Your task to perform on an android device: Search for acer nitro on ebay.com, select the first entry, add it to the cart, then select checkout. Image 0: 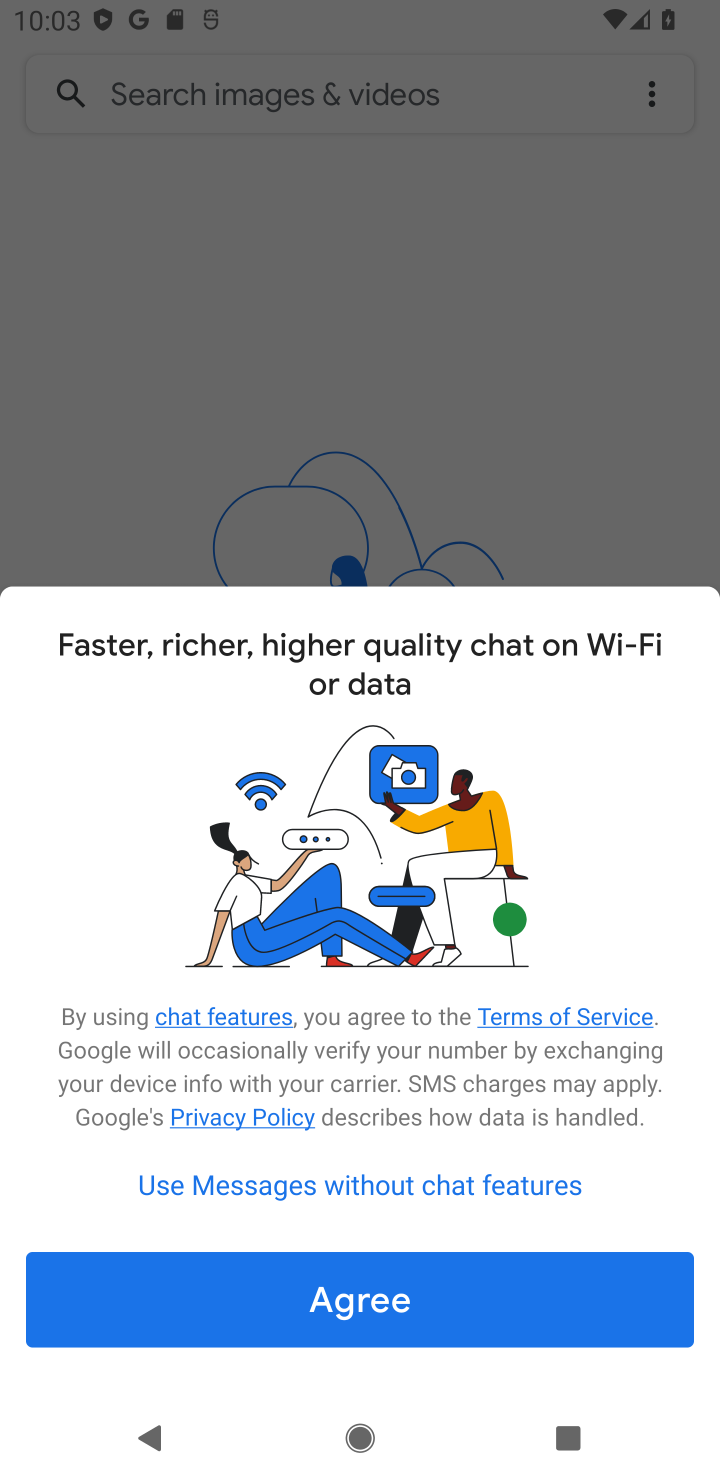
Step 0: press home button
Your task to perform on an android device: Search for acer nitro on ebay.com, select the first entry, add it to the cart, then select checkout. Image 1: 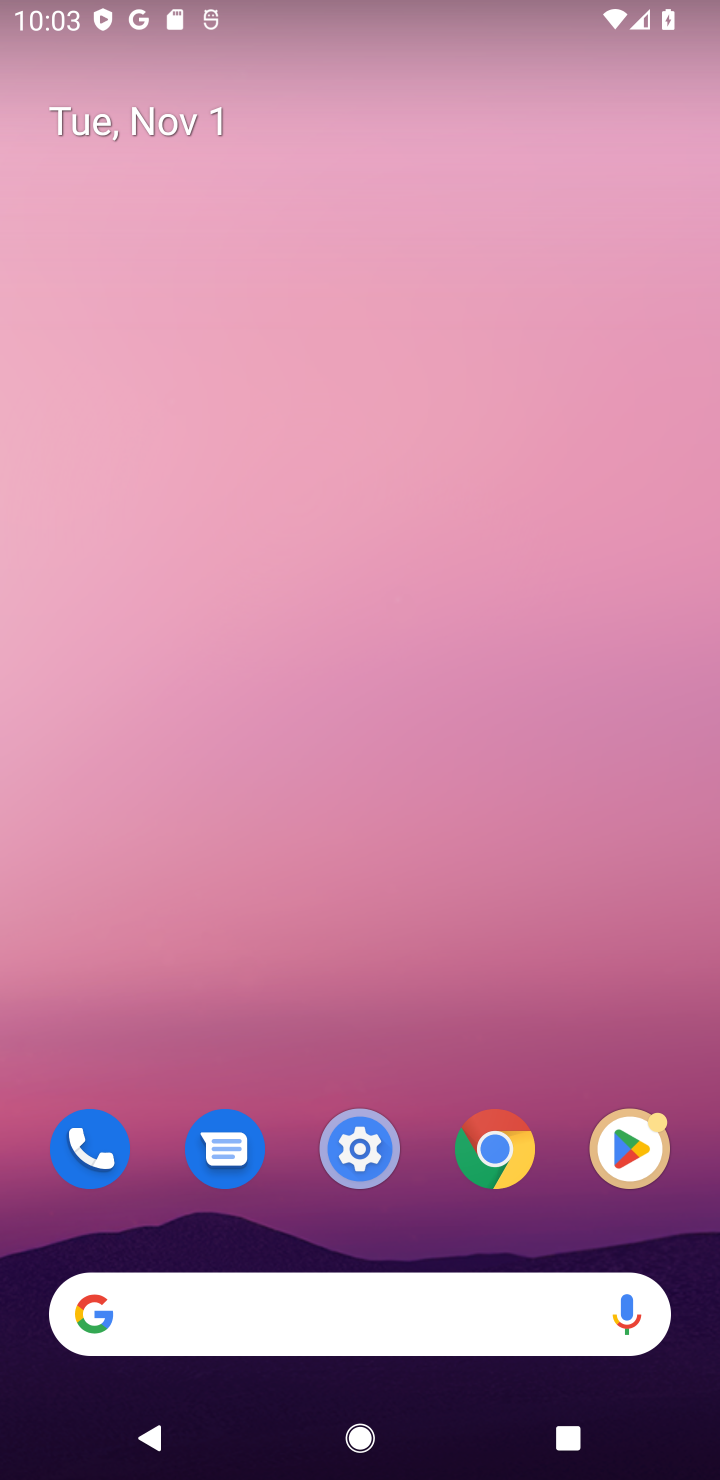
Step 1: press home button
Your task to perform on an android device: Search for acer nitro on ebay.com, select the first entry, add it to the cart, then select checkout. Image 2: 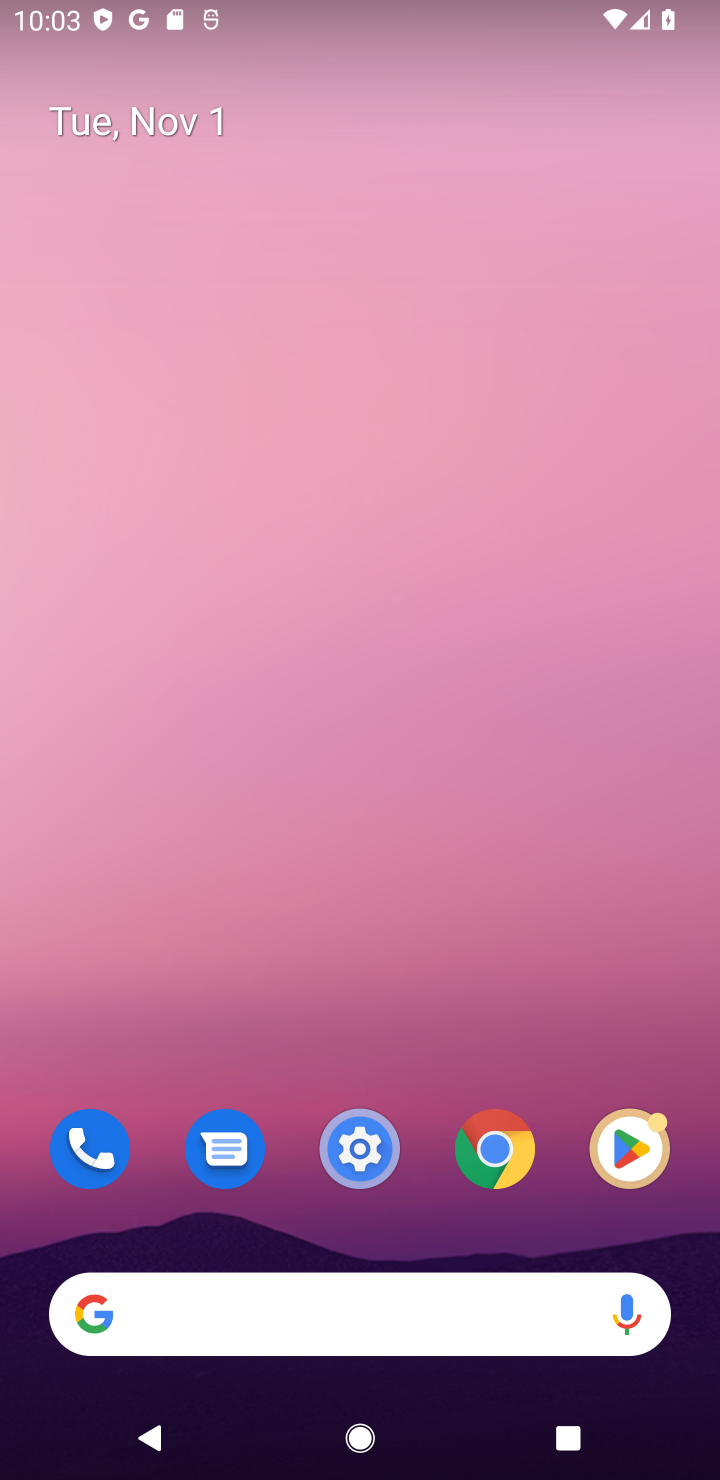
Step 2: click (144, 1327)
Your task to perform on an android device: Search for acer nitro on ebay.com, select the first entry, add it to the cart, then select checkout. Image 3: 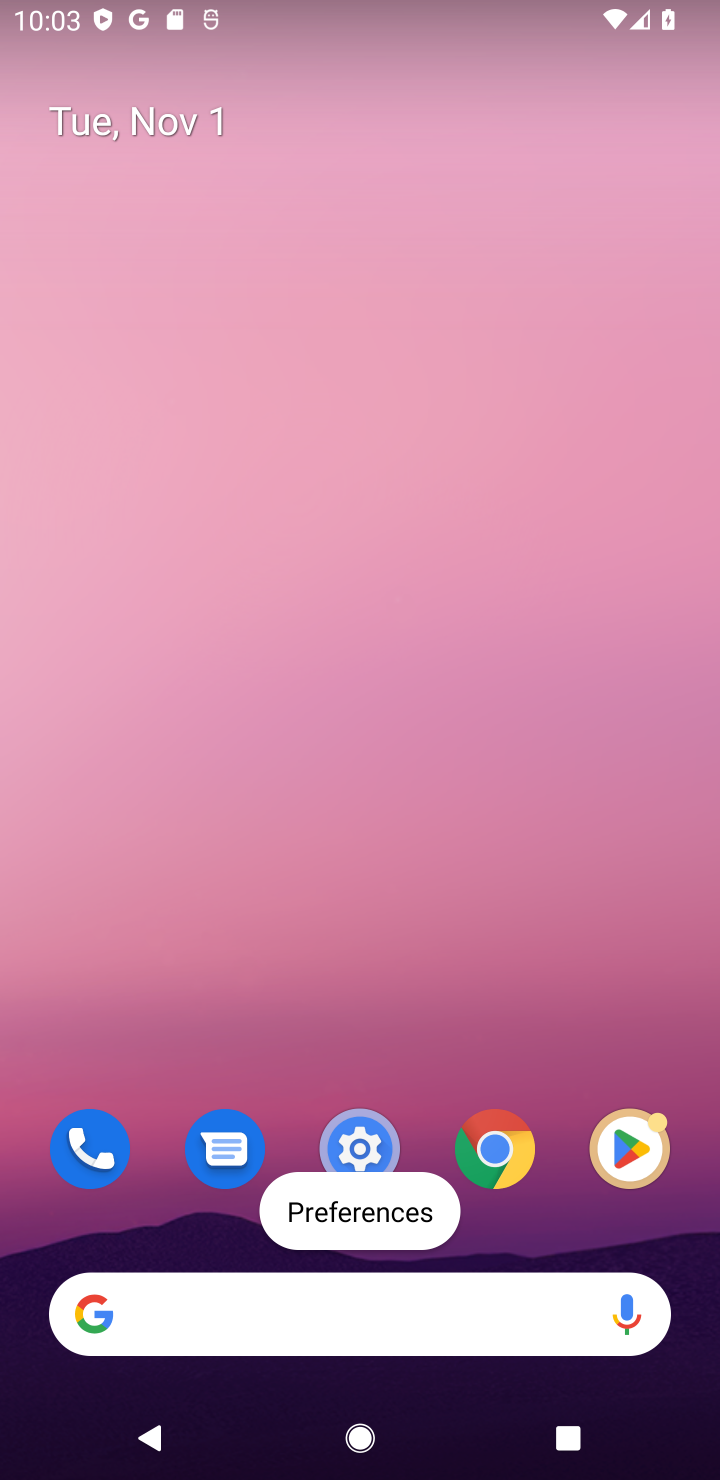
Step 3: click (154, 1316)
Your task to perform on an android device: Search for acer nitro on ebay.com, select the first entry, add it to the cart, then select checkout. Image 4: 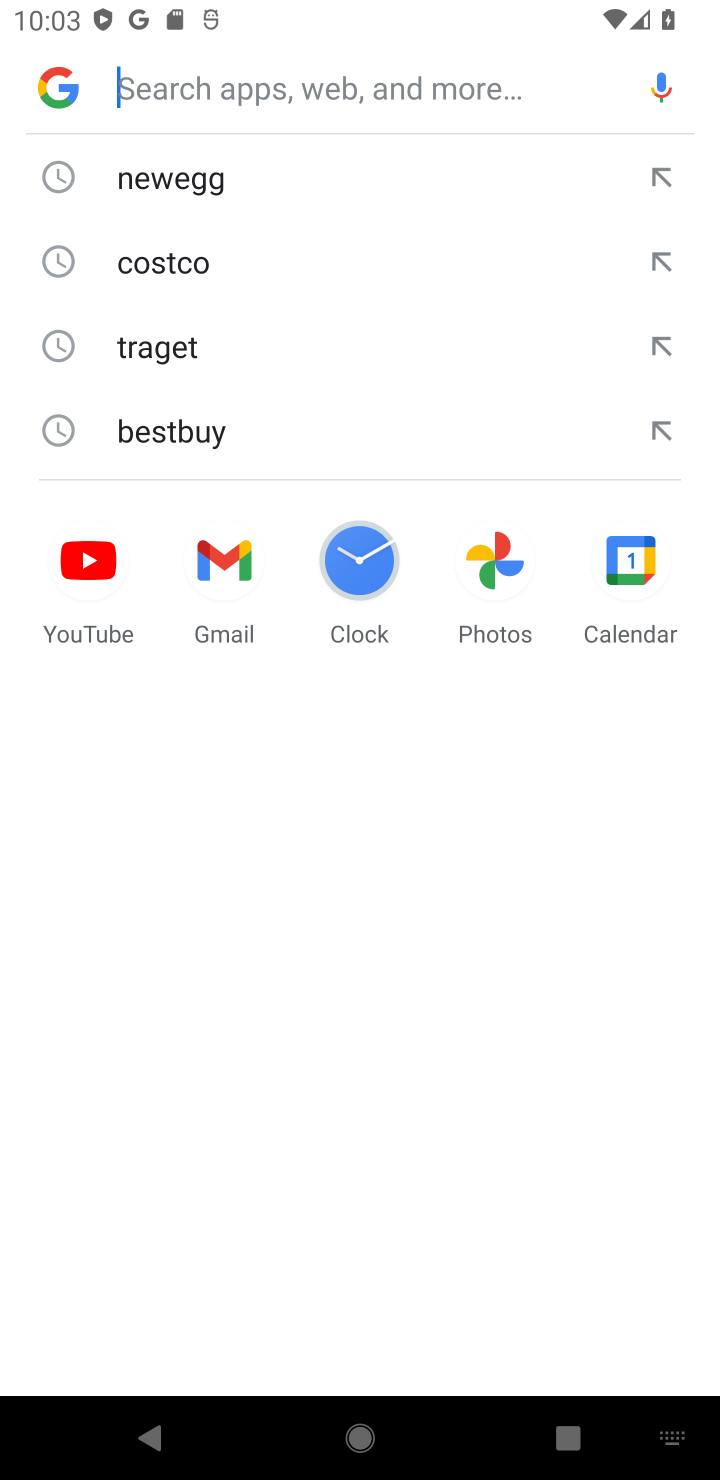
Step 4: type "ebay.com"
Your task to perform on an android device: Search for acer nitro on ebay.com, select the first entry, add it to the cart, then select checkout. Image 5: 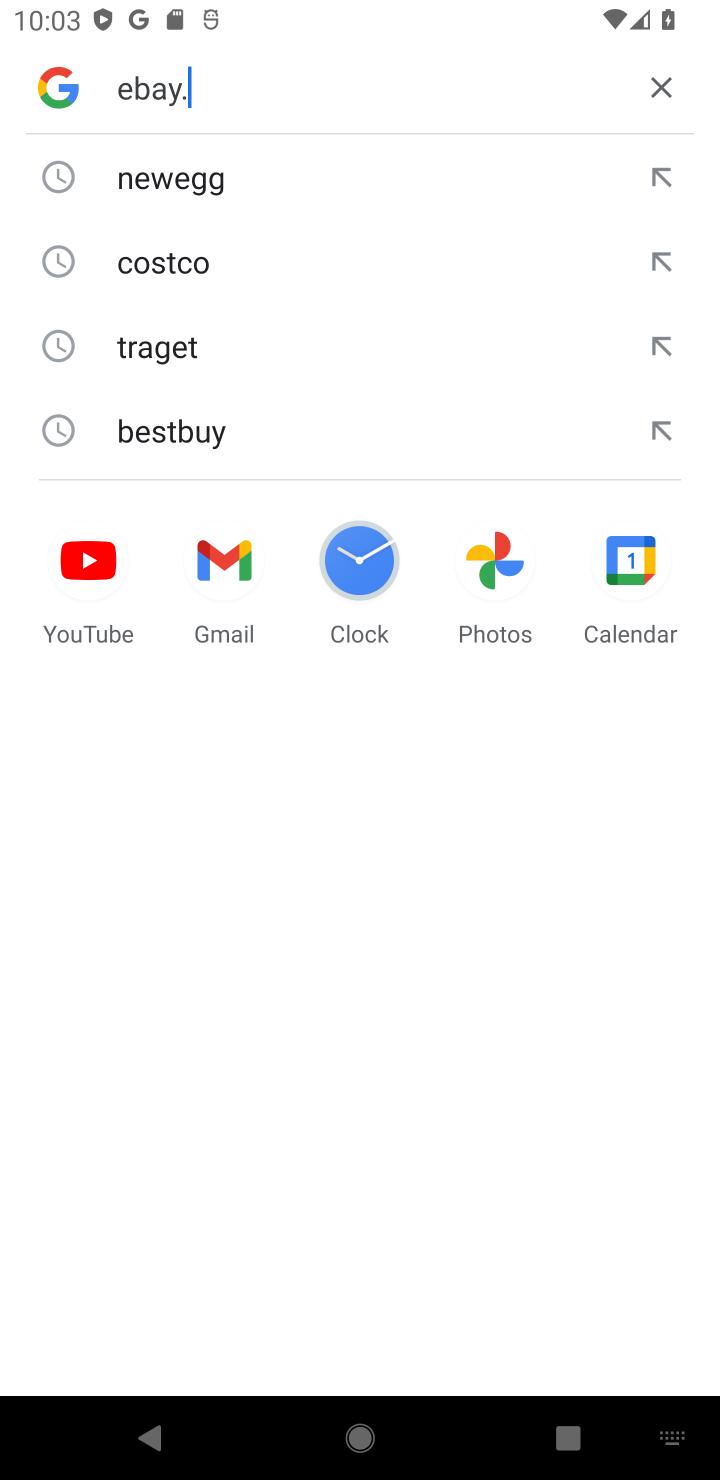
Step 5: press enter
Your task to perform on an android device: Search for acer nitro on ebay.com, select the first entry, add it to the cart, then select checkout. Image 6: 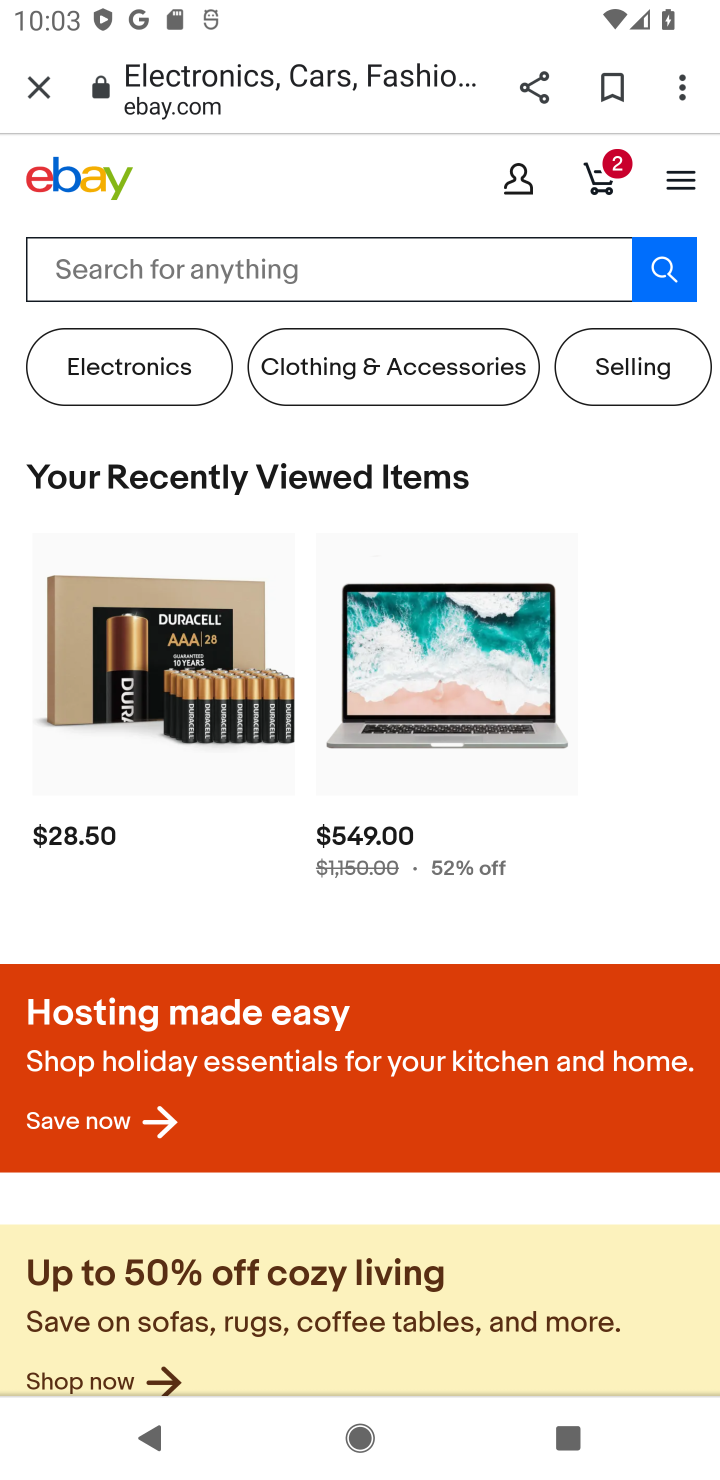
Step 6: click (241, 270)
Your task to perform on an android device: Search for acer nitro on ebay.com, select the first entry, add it to the cart, then select checkout. Image 7: 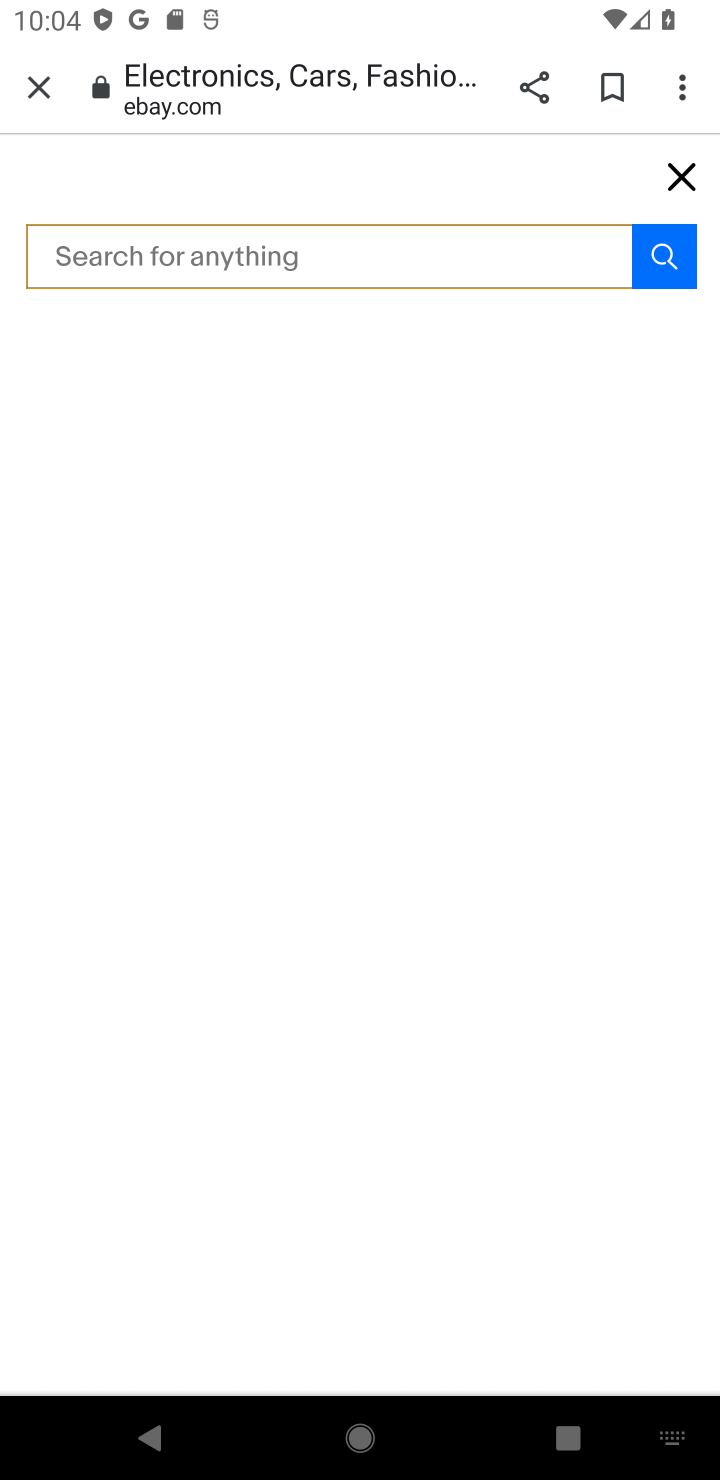
Step 7: type "acer nitro"
Your task to perform on an android device: Search for acer nitro on ebay.com, select the first entry, add it to the cart, then select checkout. Image 8: 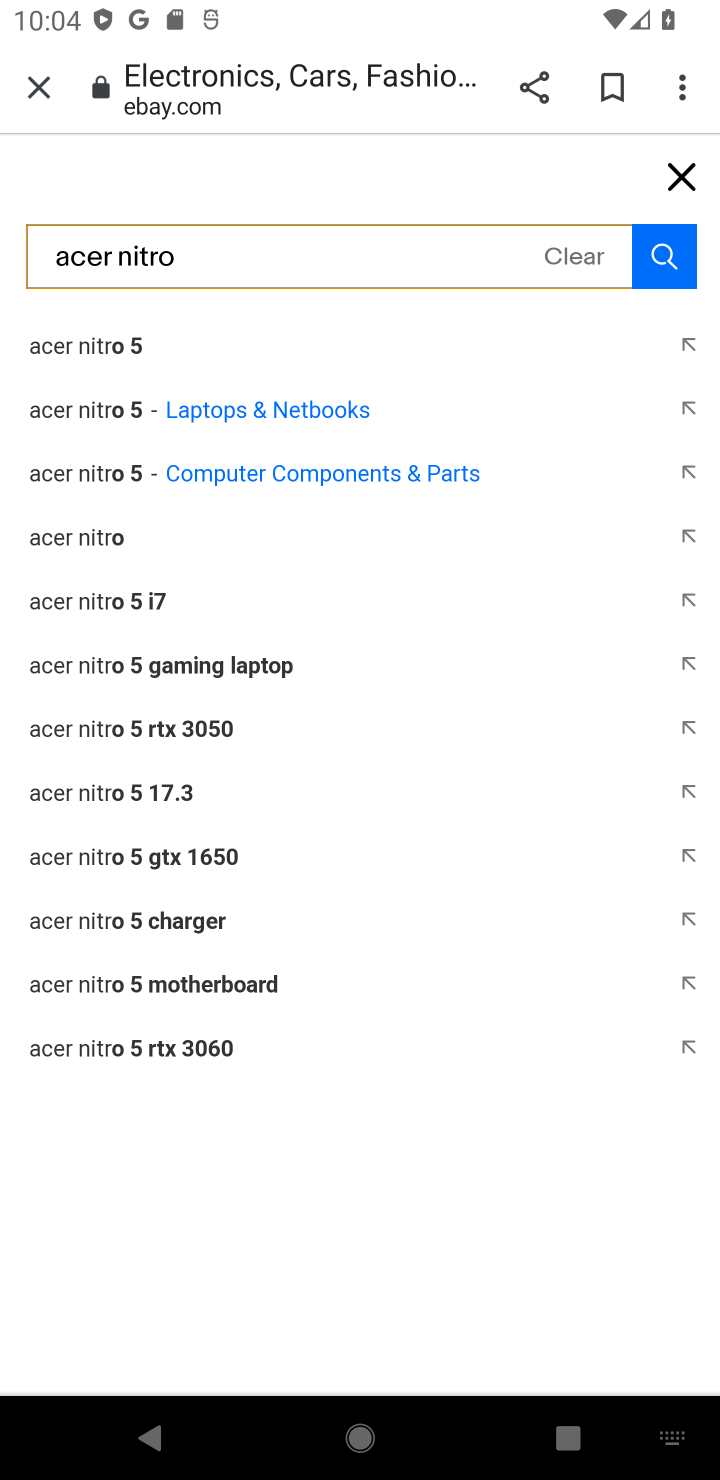
Step 8: click (662, 252)
Your task to perform on an android device: Search for acer nitro on ebay.com, select the first entry, add it to the cart, then select checkout. Image 9: 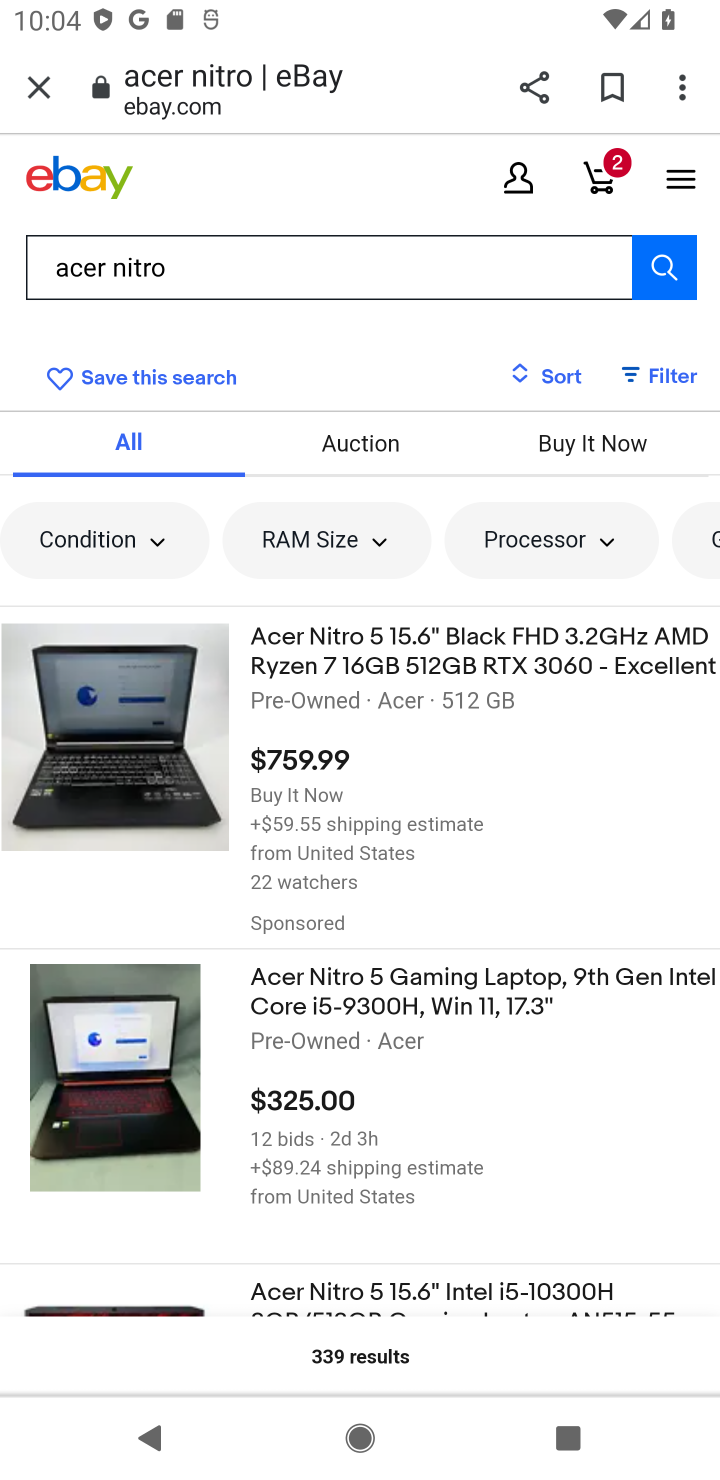
Step 9: click (456, 654)
Your task to perform on an android device: Search for acer nitro on ebay.com, select the first entry, add it to the cart, then select checkout. Image 10: 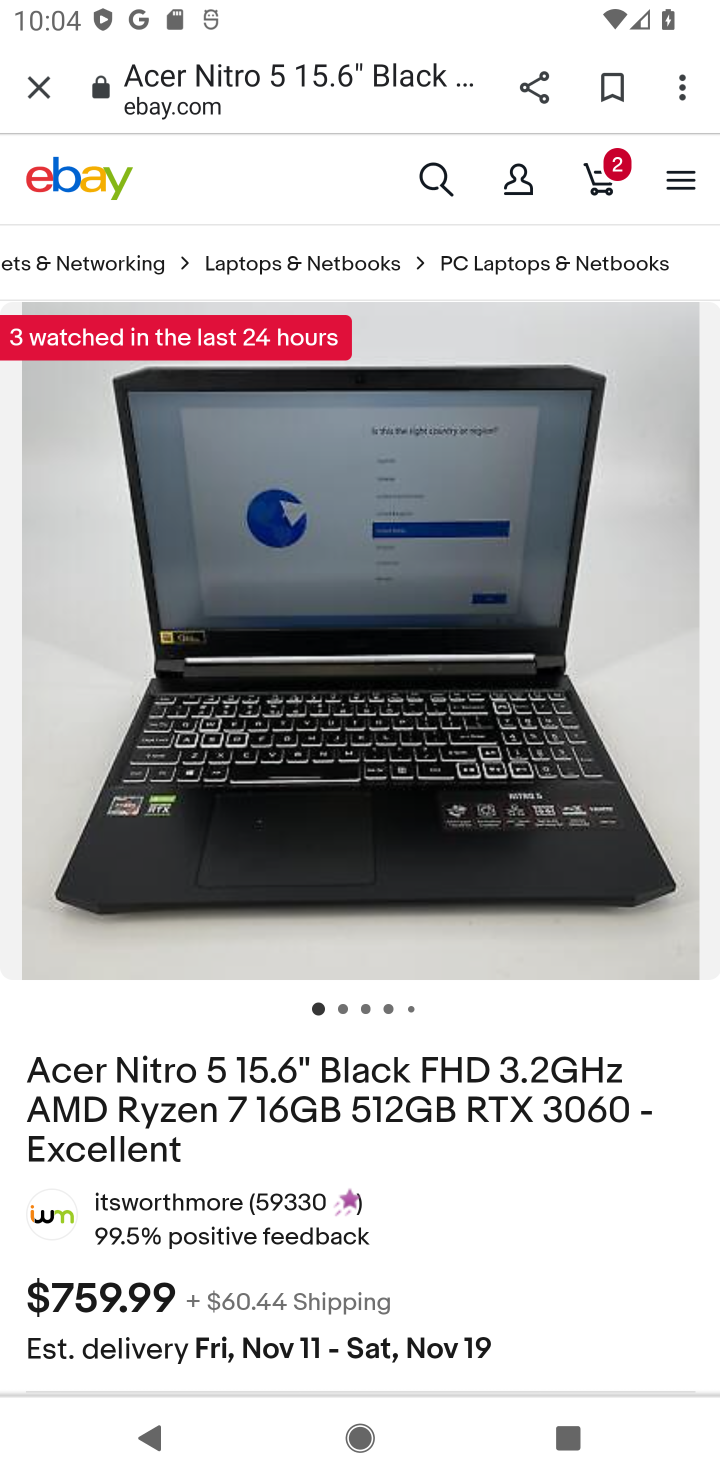
Step 10: drag from (417, 1202) to (422, 405)
Your task to perform on an android device: Search for acer nitro on ebay.com, select the first entry, add it to the cart, then select checkout. Image 11: 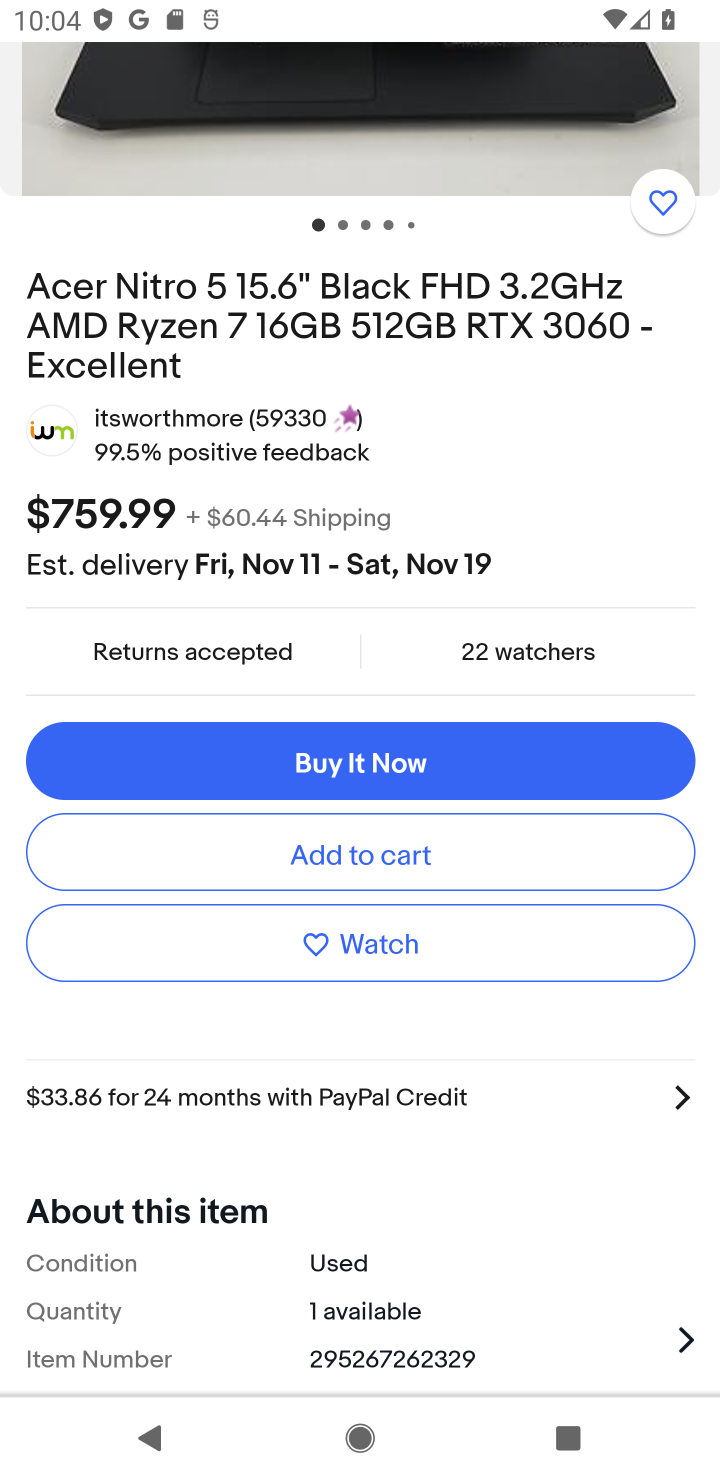
Step 11: click (348, 861)
Your task to perform on an android device: Search for acer nitro on ebay.com, select the first entry, add it to the cart, then select checkout. Image 12: 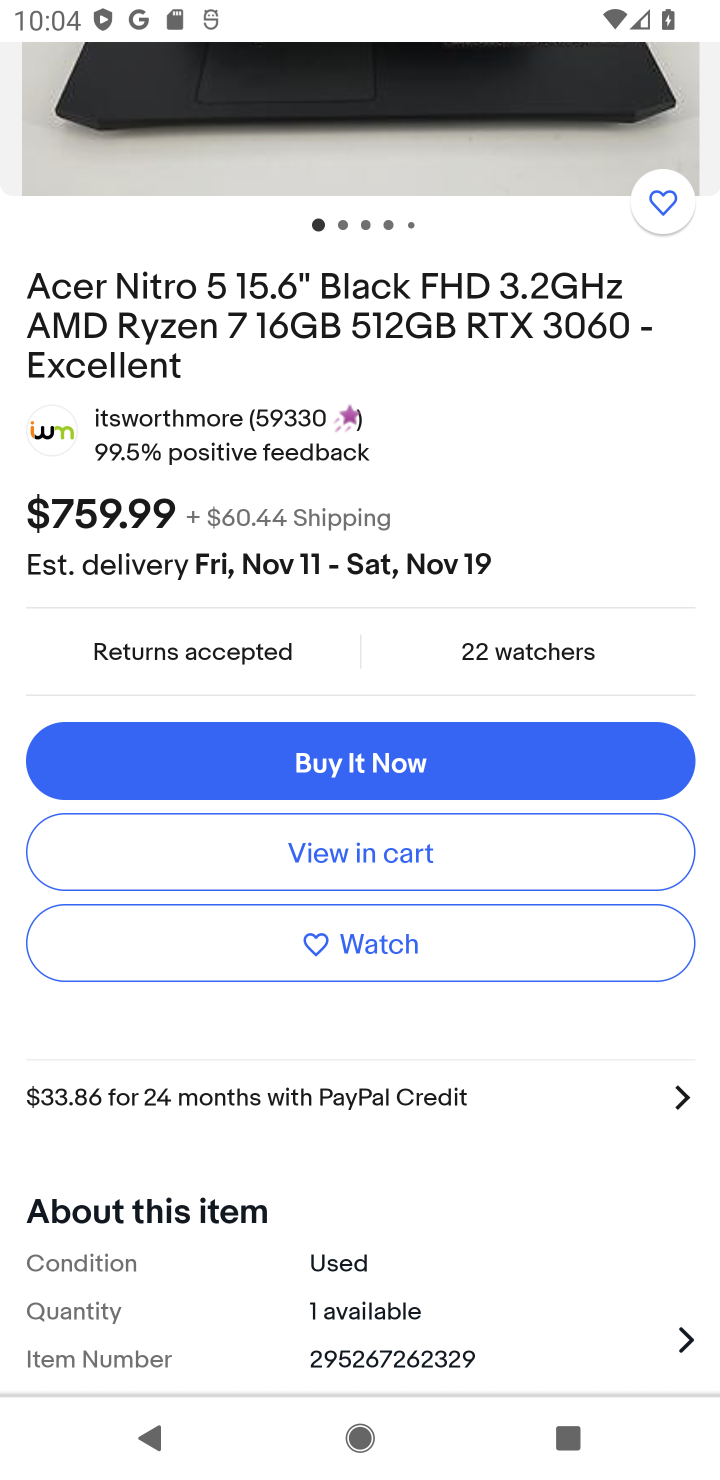
Step 12: click (348, 861)
Your task to perform on an android device: Search for acer nitro on ebay.com, select the first entry, add it to the cart, then select checkout. Image 13: 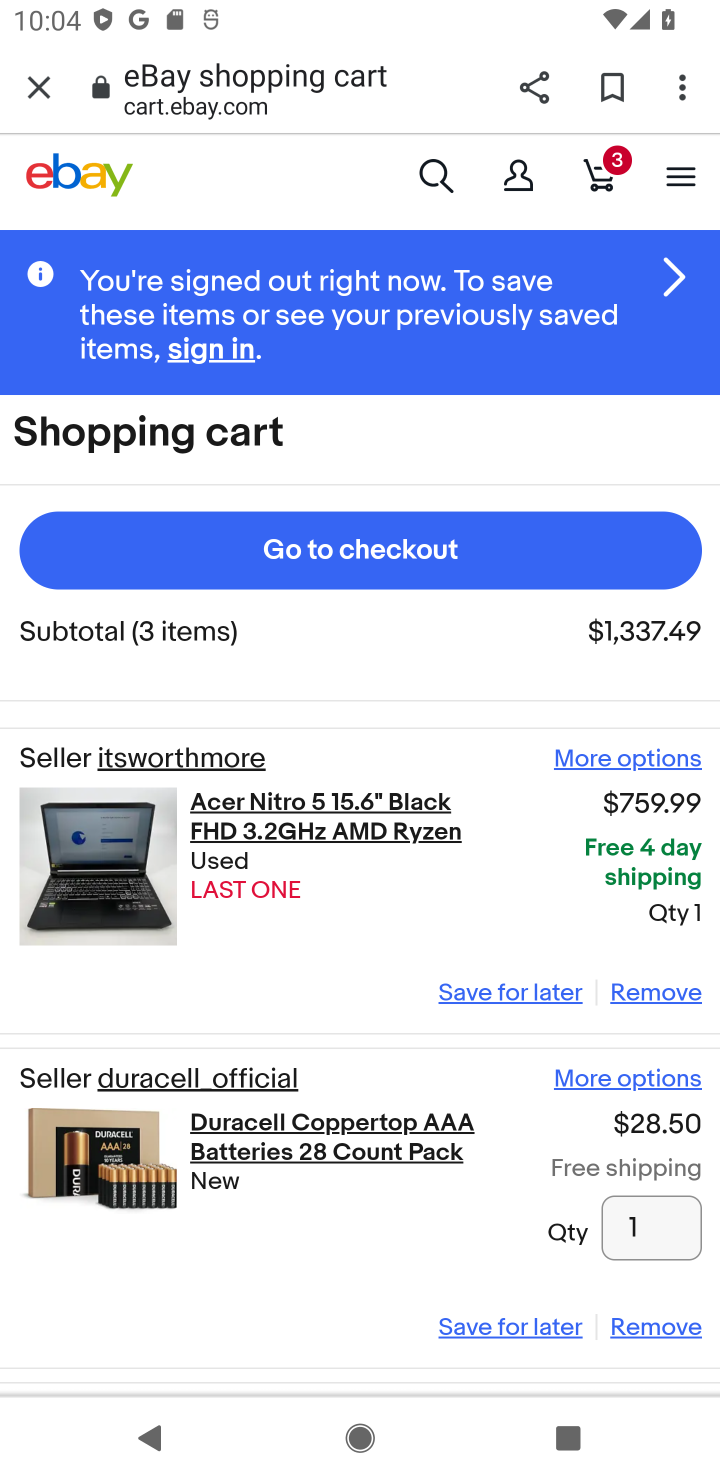
Step 13: click (324, 549)
Your task to perform on an android device: Search for acer nitro on ebay.com, select the first entry, add it to the cart, then select checkout. Image 14: 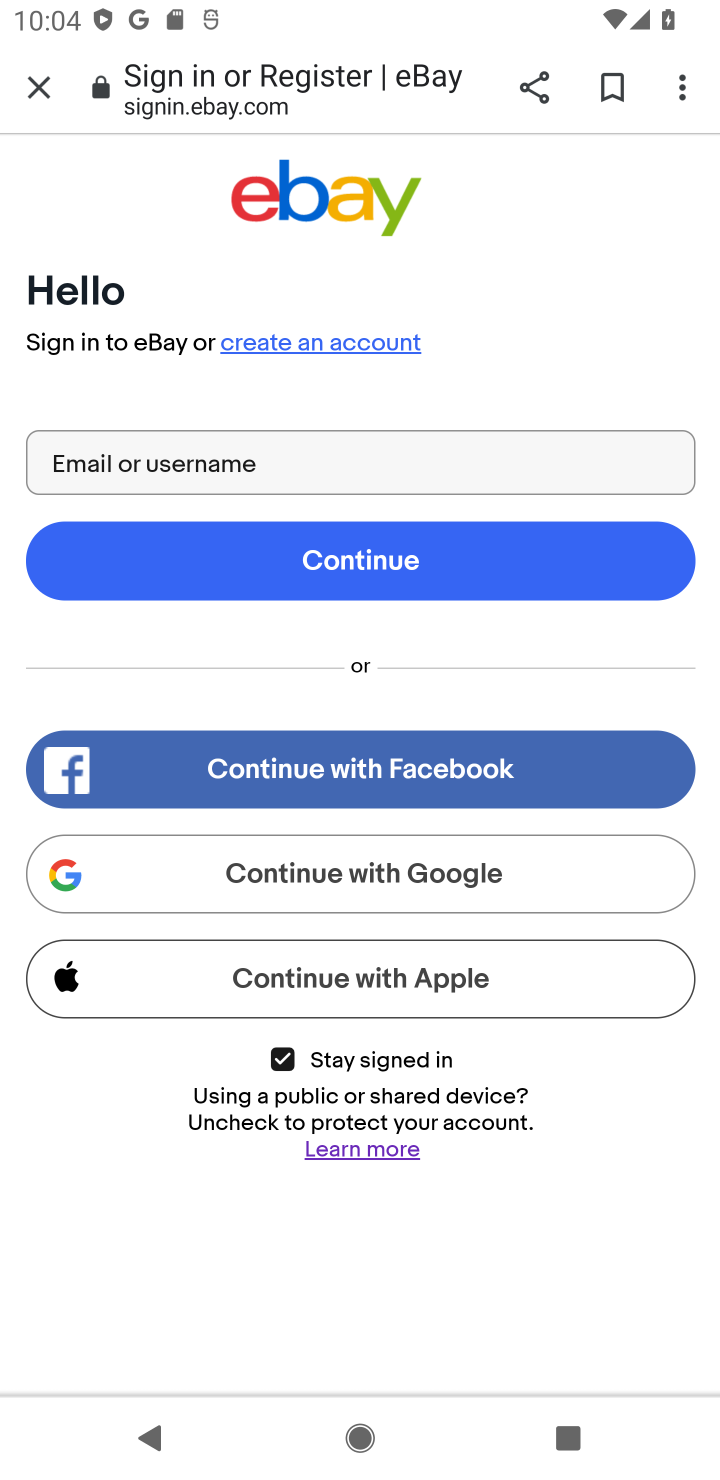
Step 14: task complete